Your task to perform on an android device: snooze an email in the gmail app Image 0: 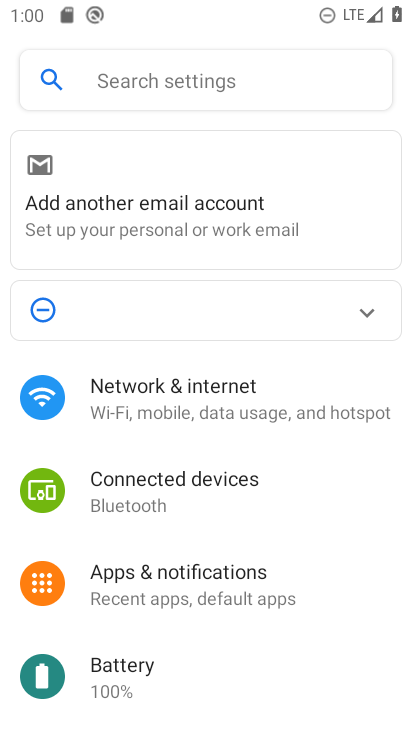
Step 0: press home button
Your task to perform on an android device: snooze an email in the gmail app Image 1: 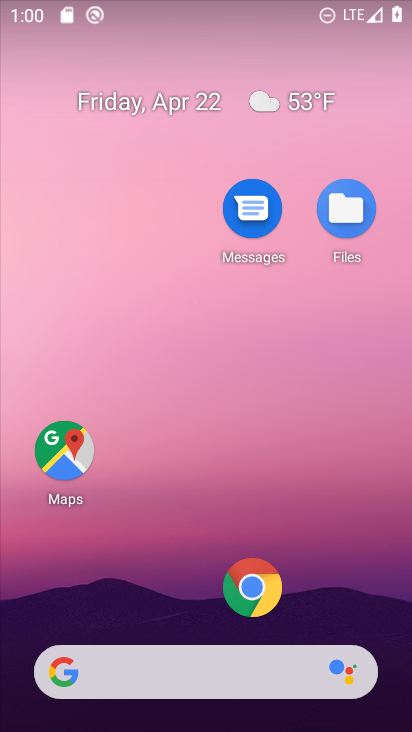
Step 1: drag from (141, 571) to (160, 101)
Your task to perform on an android device: snooze an email in the gmail app Image 2: 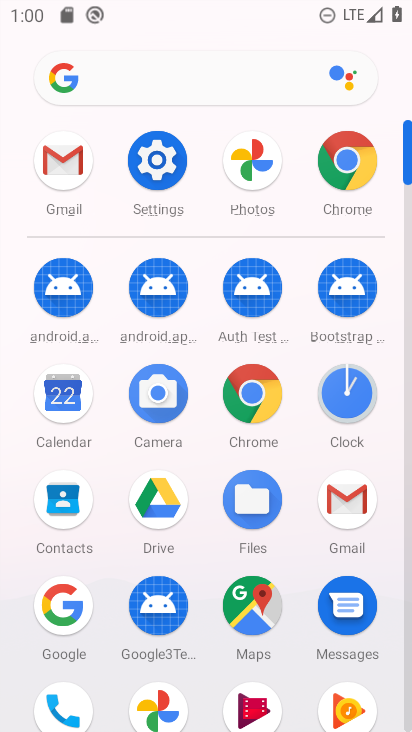
Step 2: click (346, 519)
Your task to perform on an android device: snooze an email in the gmail app Image 3: 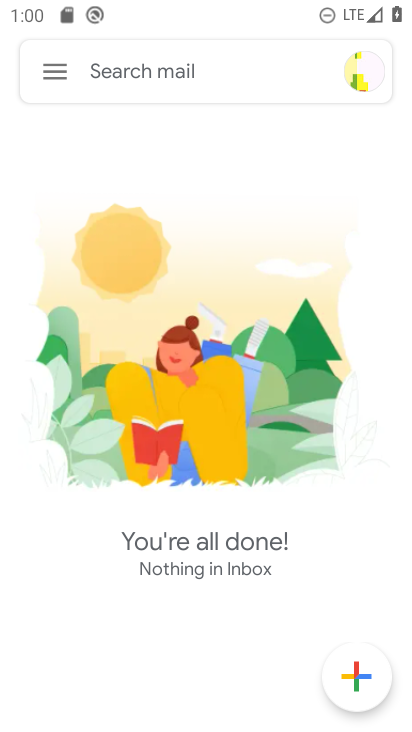
Step 3: click (57, 66)
Your task to perform on an android device: snooze an email in the gmail app Image 4: 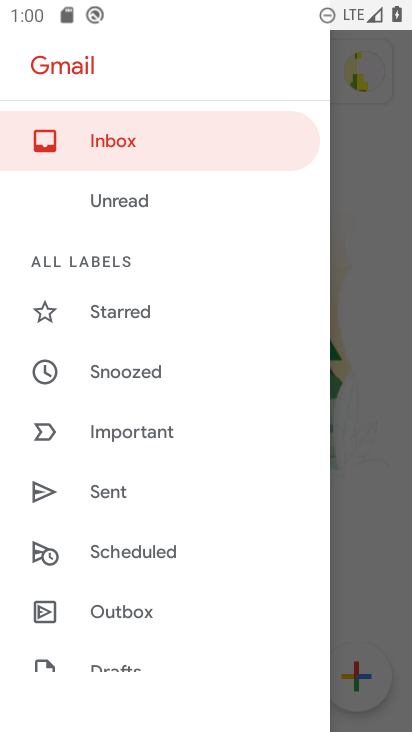
Step 4: drag from (142, 562) to (145, 188)
Your task to perform on an android device: snooze an email in the gmail app Image 5: 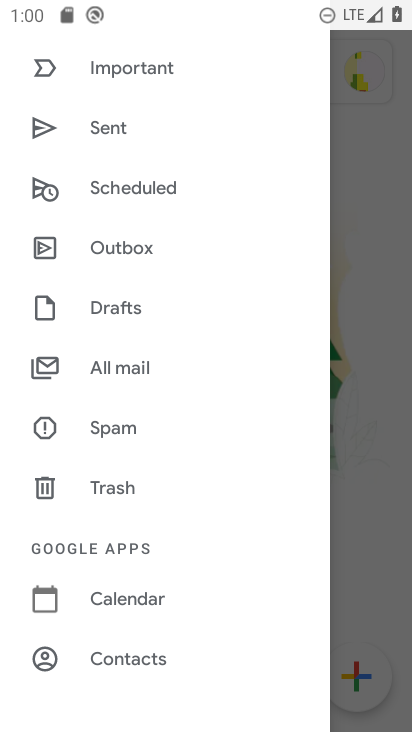
Step 5: drag from (118, 606) to (166, 294)
Your task to perform on an android device: snooze an email in the gmail app Image 6: 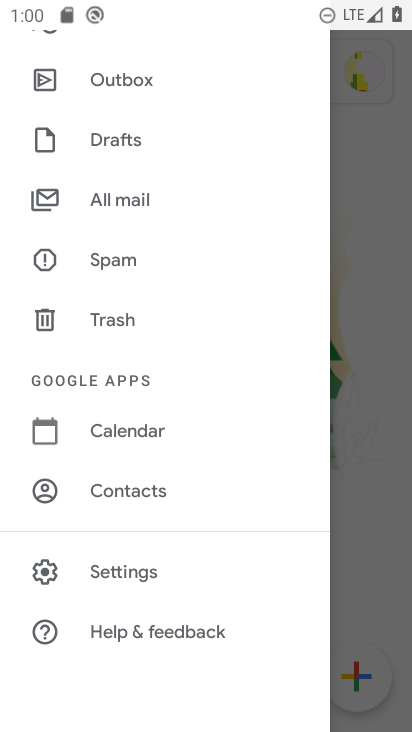
Step 6: click (119, 207)
Your task to perform on an android device: snooze an email in the gmail app Image 7: 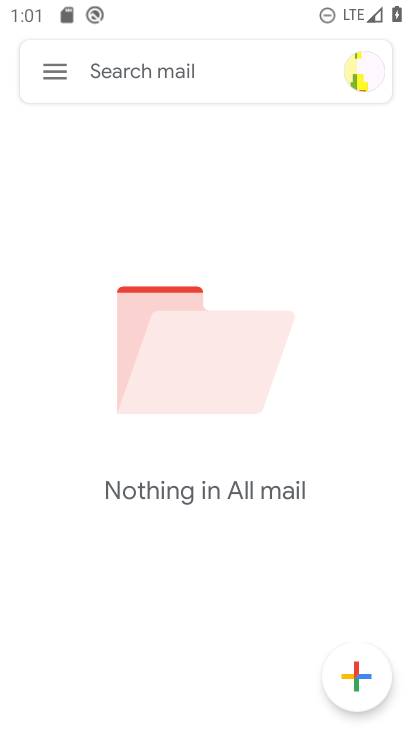
Step 7: task complete